Your task to perform on an android device: check google app version Image 0: 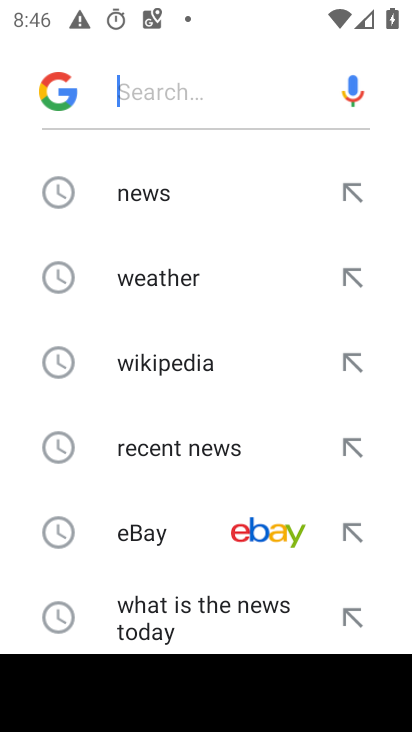
Step 0: press home button
Your task to perform on an android device: check google app version Image 1: 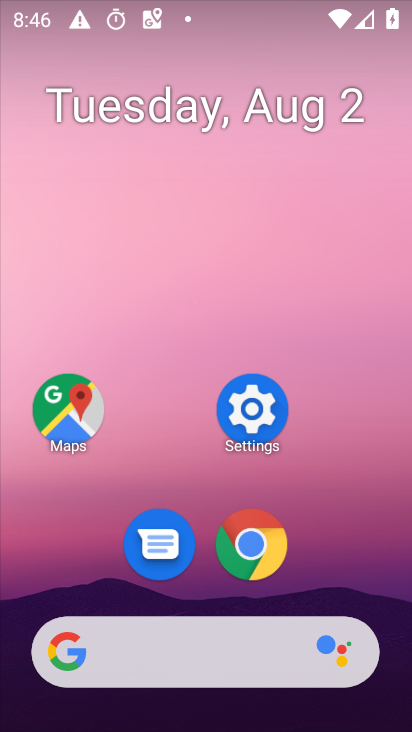
Step 1: drag from (174, 655) to (341, 155)
Your task to perform on an android device: check google app version Image 2: 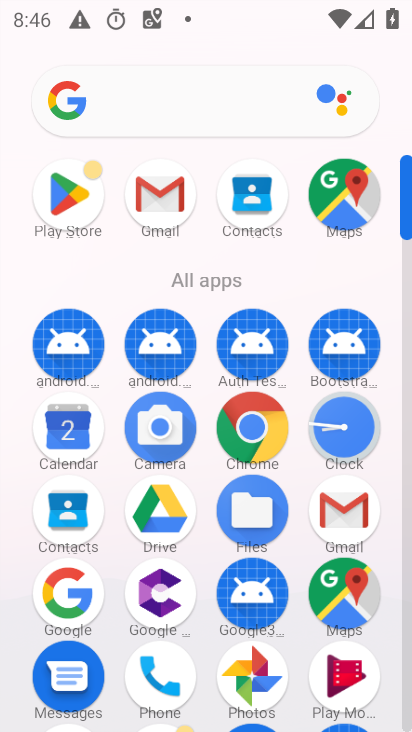
Step 2: click (84, 597)
Your task to perform on an android device: check google app version Image 3: 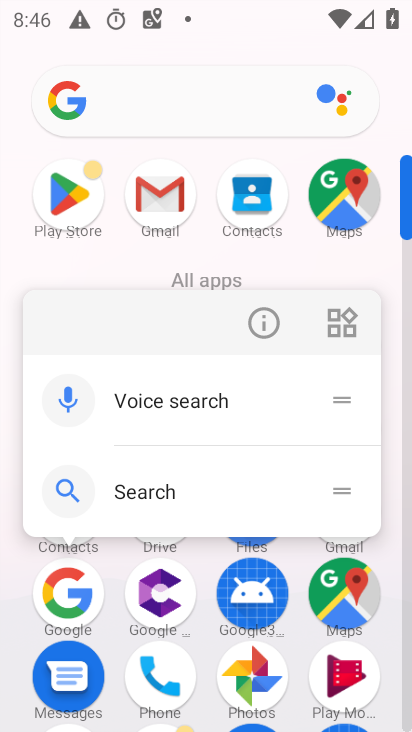
Step 3: click (253, 316)
Your task to perform on an android device: check google app version Image 4: 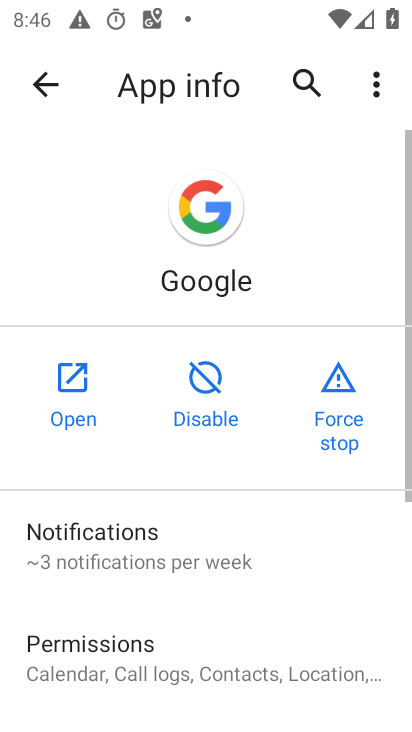
Step 4: drag from (160, 641) to (376, 172)
Your task to perform on an android device: check google app version Image 5: 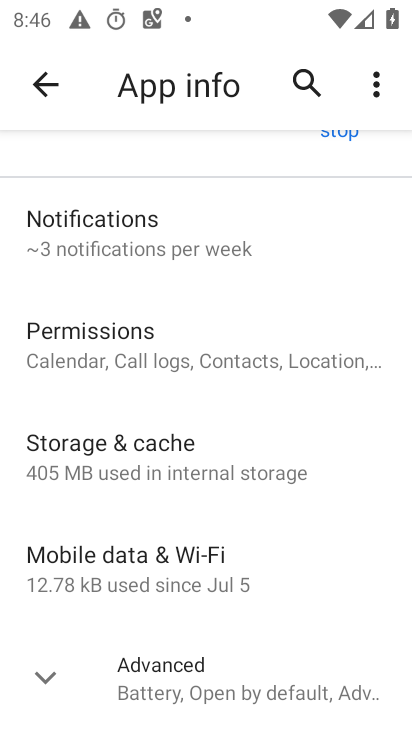
Step 5: click (143, 675)
Your task to perform on an android device: check google app version Image 6: 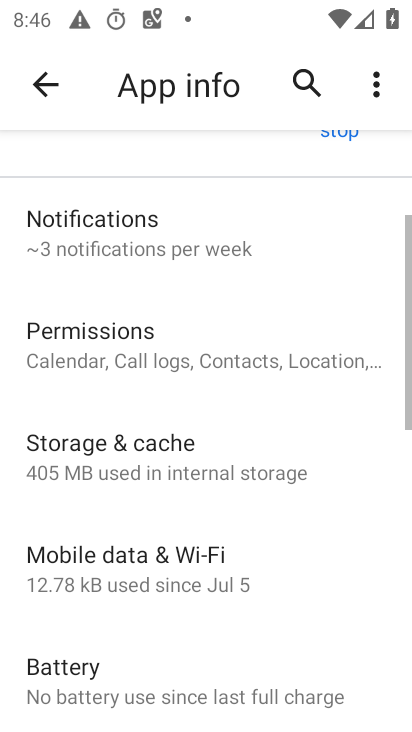
Step 6: task complete